Your task to perform on an android device: What is the news today? Image 0: 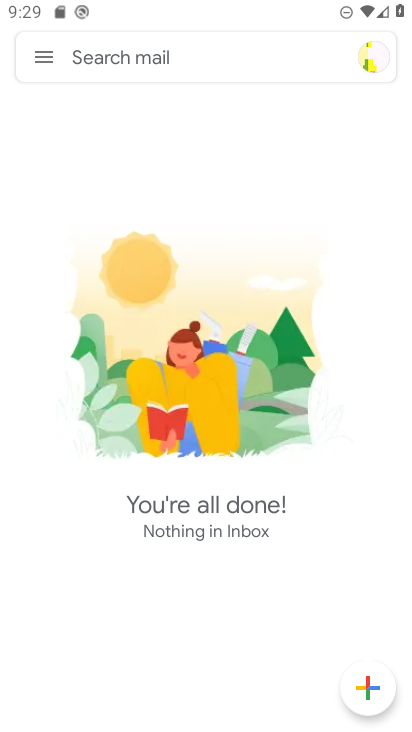
Step 0: press home button
Your task to perform on an android device: What is the news today? Image 1: 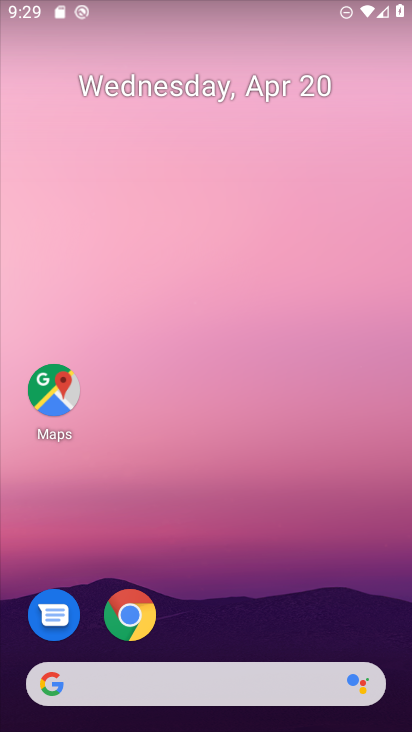
Step 1: drag from (220, 602) to (223, 178)
Your task to perform on an android device: What is the news today? Image 2: 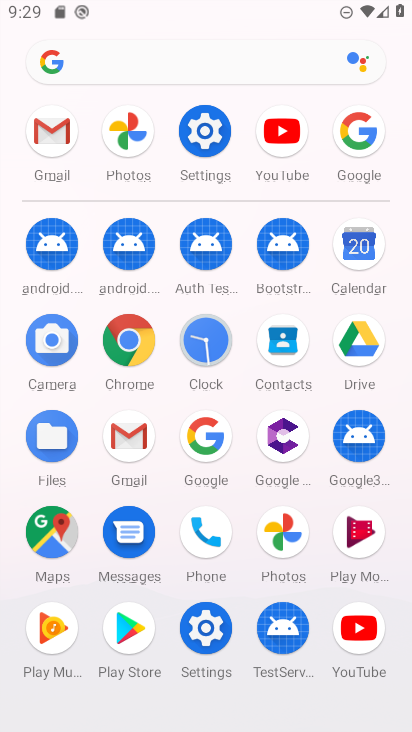
Step 2: click (204, 440)
Your task to perform on an android device: What is the news today? Image 3: 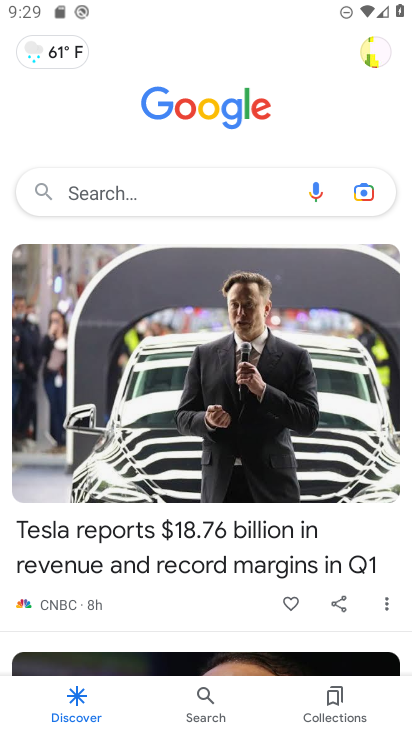
Step 3: click (178, 542)
Your task to perform on an android device: What is the news today? Image 4: 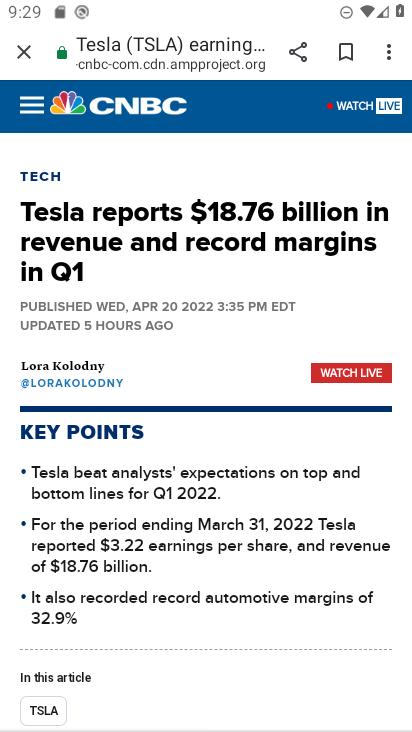
Step 4: task complete